Your task to perform on an android device: open the mobile data screen to see how much data has been used Image 0: 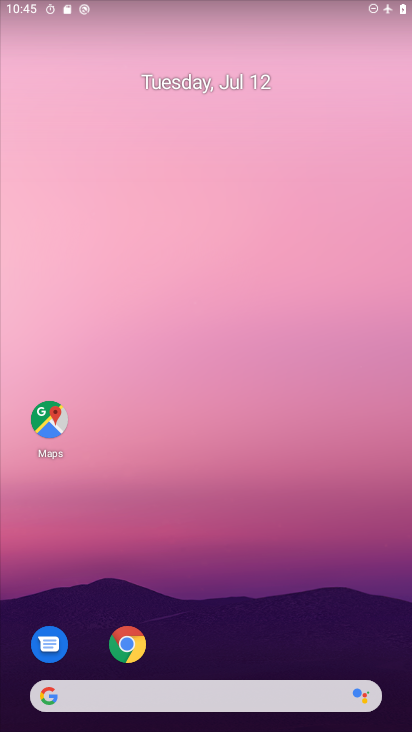
Step 0: drag from (195, 641) to (213, 186)
Your task to perform on an android device: open the mobile data screen to see how much data has been used Image 1: 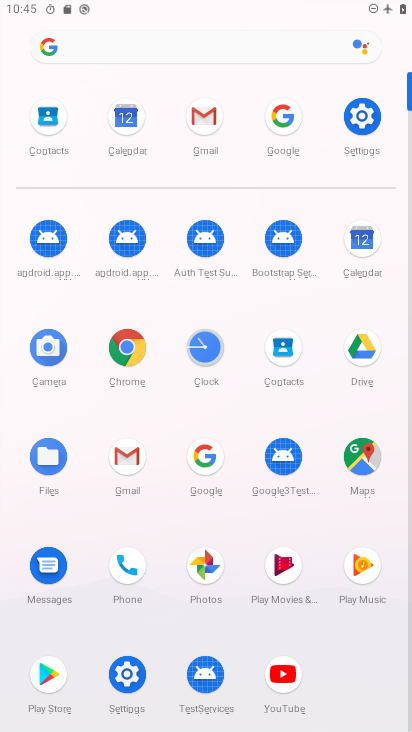
Step 1: click (368, 109)
Your task to perform on an android device: open the mobile data screen to see how much data has been used Image 2: 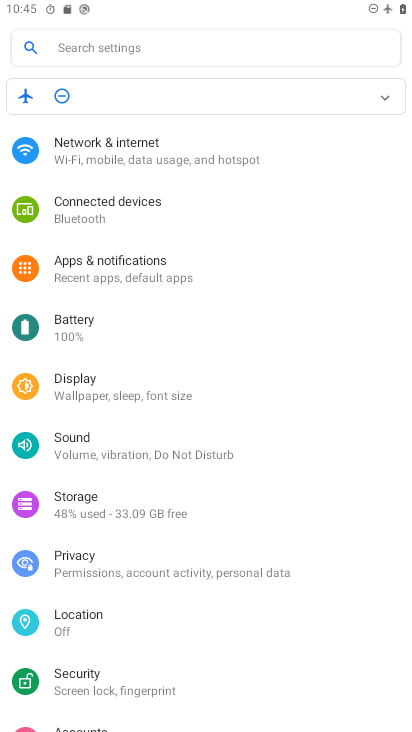
Step 2: click (123, 171)
Your task to perform on an android device: open the mobile data screen to see how much data has been used Image 3: 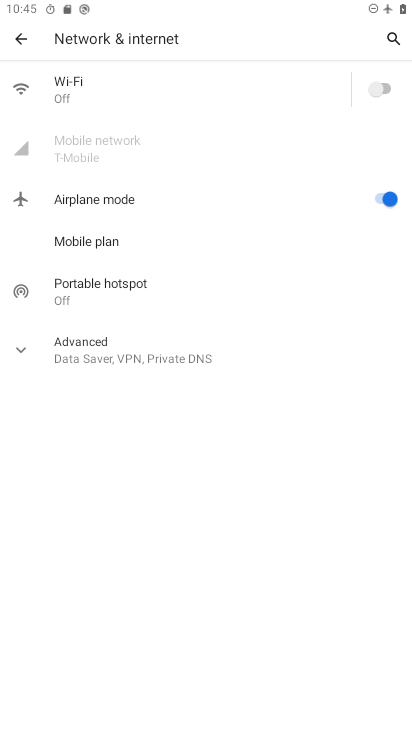
Step 3: click (122, 147)
Your task to perform on an android device: open the mobile data screen to see how much data has been used Image 4: 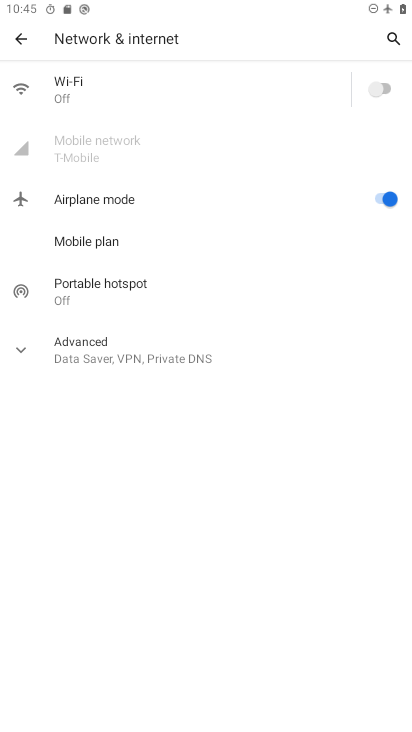
Step 4: click (123, 132)
Your task to perform on an android device: open the mobile data screen to see how much data has been used Image 5: 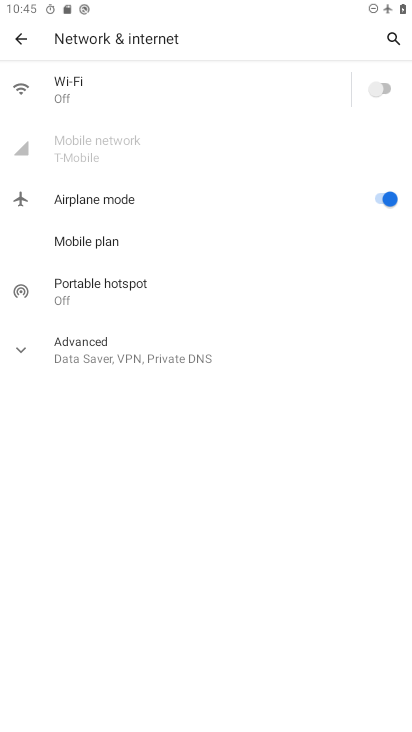
Step 5: task complete